Your task to perform on an android device: toggle improve location accuracy Image 0: 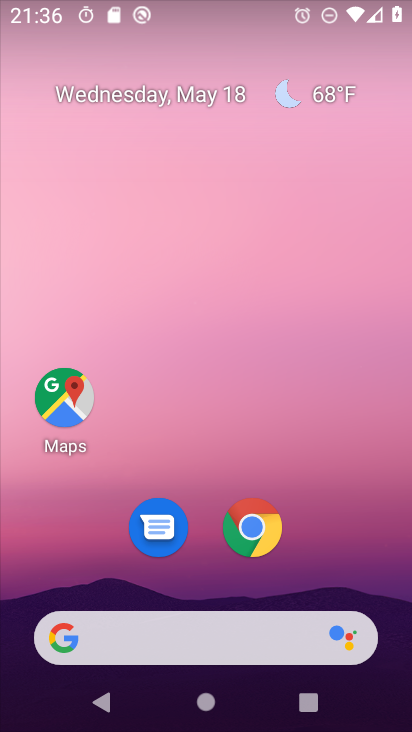
Step 0: drag from (392, 652) to (358, 297)
Your task to perform on an android device: toggle improve location accuracy Image 1: 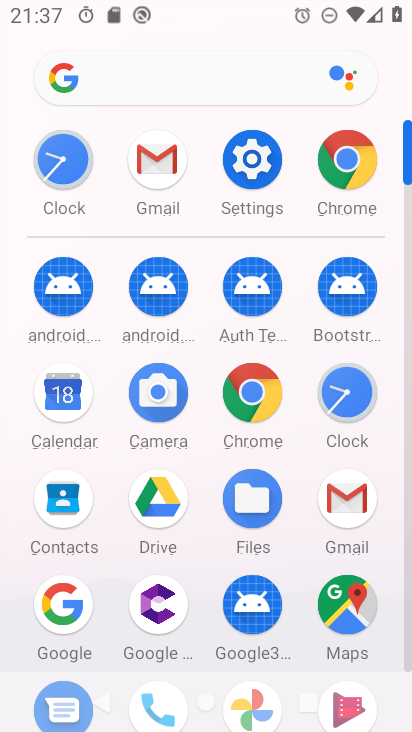
Step 1: click (245, 163)
Your task to perform on an android device: toggle improve location accuracy Image 2: 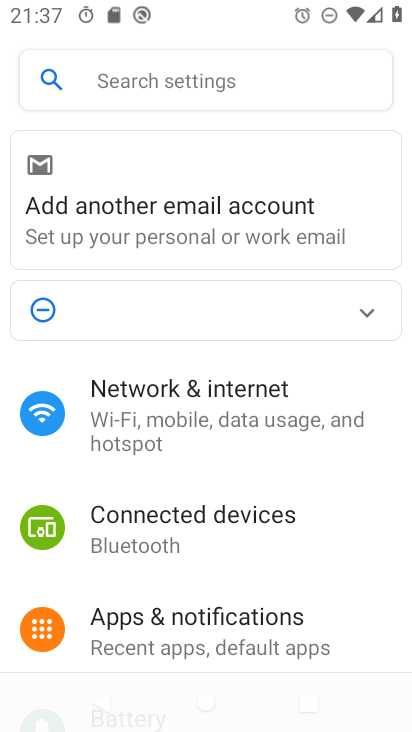
Step 2: drag from (360, 633) to (353, 378)
Your task to perform on an android device: toggle improve location accuracy Image 3: 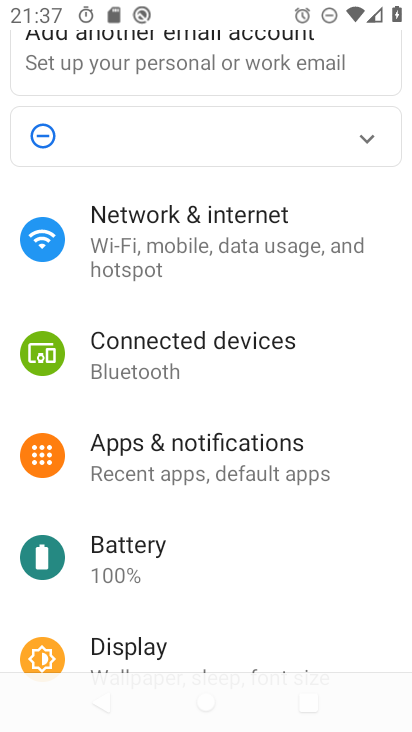
Step 3: drag from (350, 618) to (316, 353)
Your task to perform on an android device: toggle improve location accuracy Image 4: 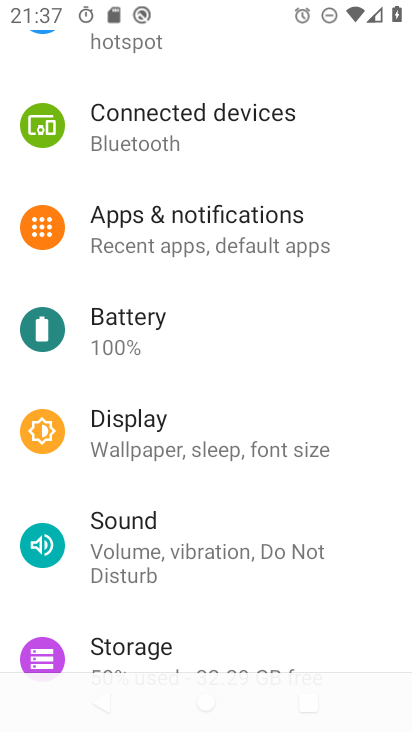
Step 4: drag from (345, 641) to (345, 431)
Your task to perform on an android device: toggle improve location accuracy Image 5: 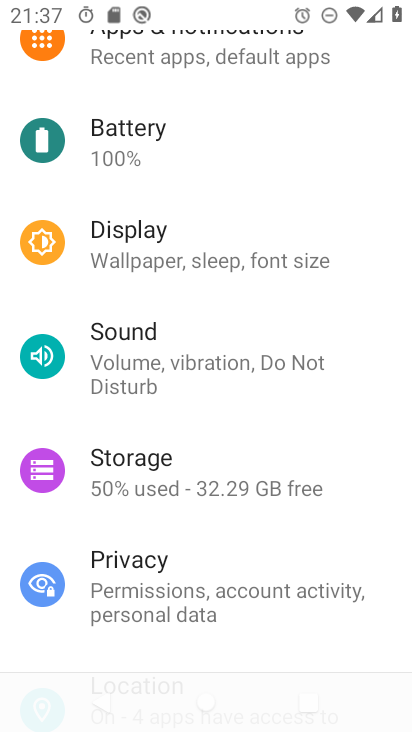
Step 5: drag from (356, 568) to (339, 255)
Your task to perform on an android device: toggle improve location accuracy Image 6: 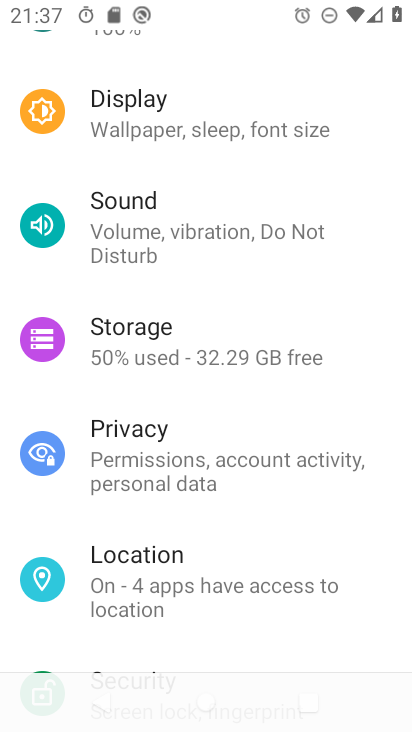
Step 6: click (97, 569)
Your task to perform on an android device: toggle improve location accuracy Image 7: 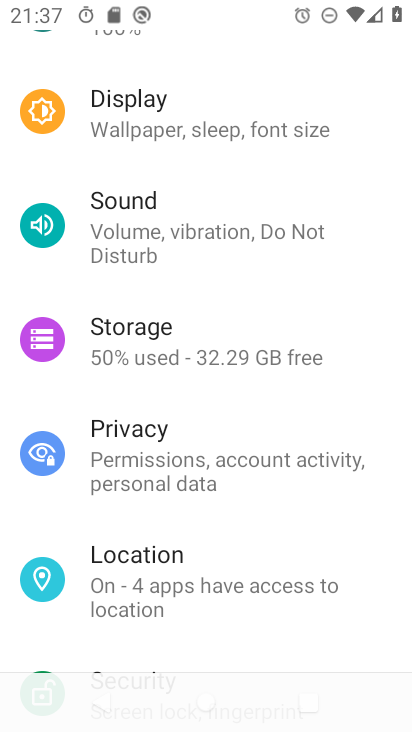
Step 7: click (160, 557)
Your task to perform on an android device: toggle improve location accuracy Image 8: 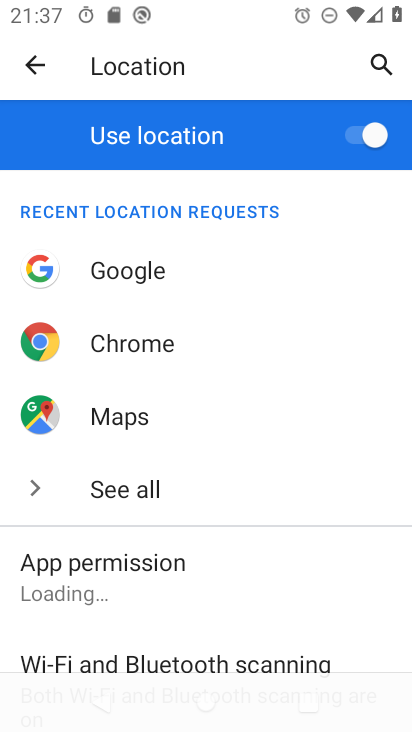
Step 8: drag from (306, 612) to (279, 374)
Your task to perform on an android device: toggle improve location accuracy Image 9: 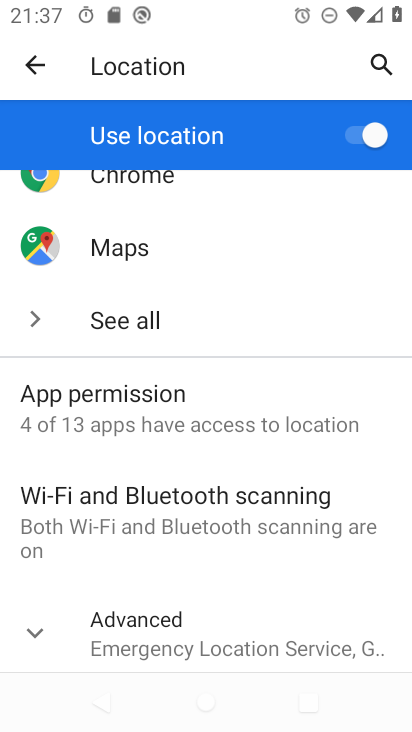
Step 9: click (60, 634)
Your task to perform on an android device: toggle improve location accuracy Image 10: 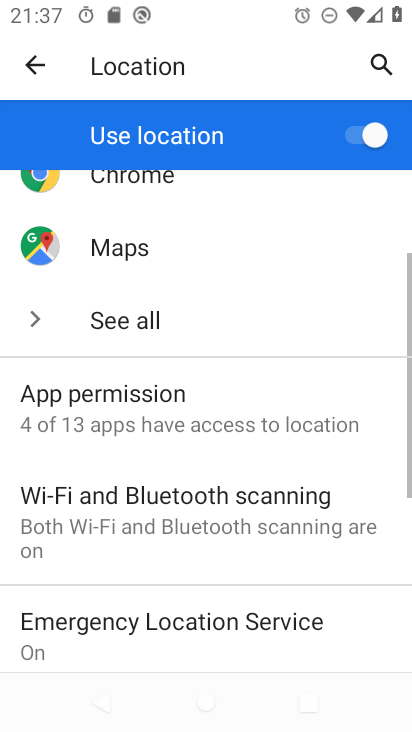
Step 10: drag from (306, 575) to (285, 414)
Your task to perform on an android device: toggle improve location accuracy Image 11: 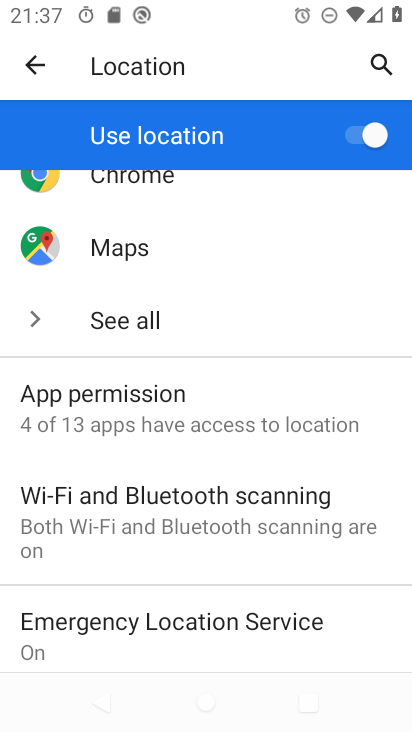
Step 11: drag from (352, 560) to (361, 223)
Your task to perform on an android device: toggle improve location accuracy Image 12: 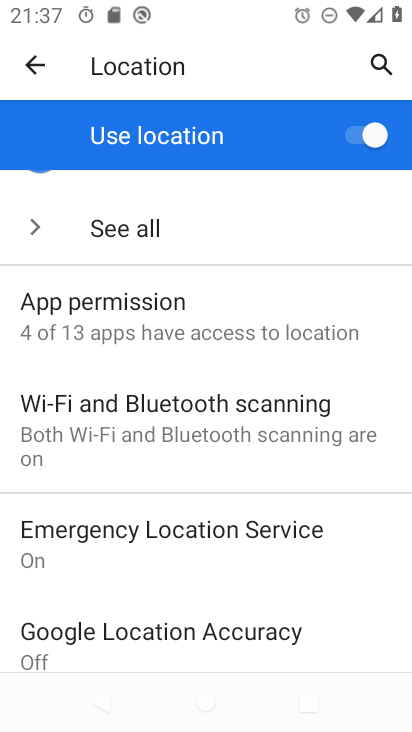
Step 12: drag from (335, 644) to (301, 332)
Your task to perform on an android device: toggle improve location accuracy Image 13: 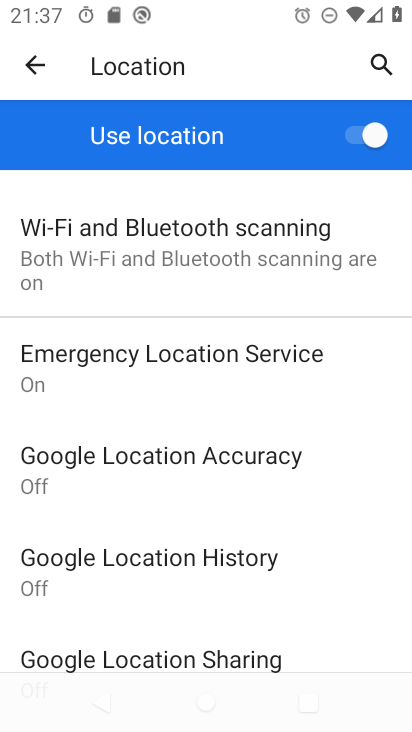
Step 13: click (117, 460)
Your task to perform on an android device: toggle improve location accuracy Image 14: 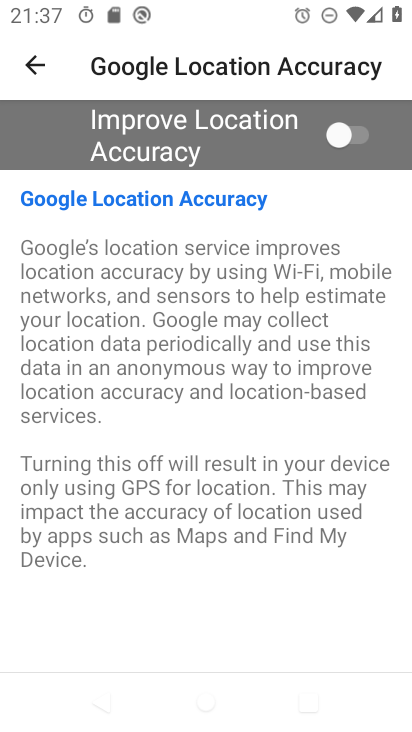
Step 14: click (355, 131)
Your task to perform on an android device: toggle improve location accuracy Image 15: 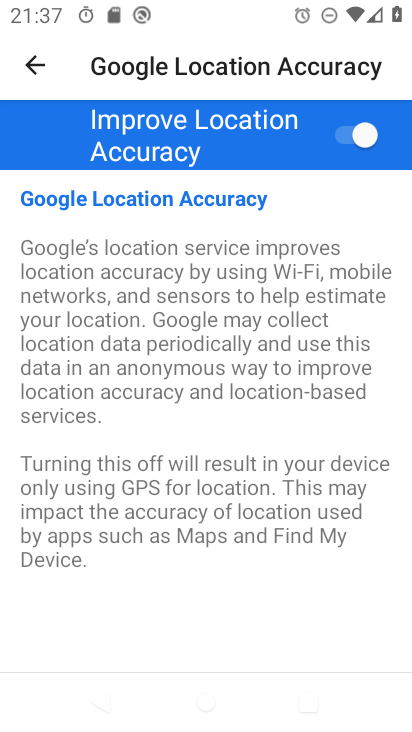
Step 15: task complete